Your task to perform on an android device: Open Reddit.com Image 0: 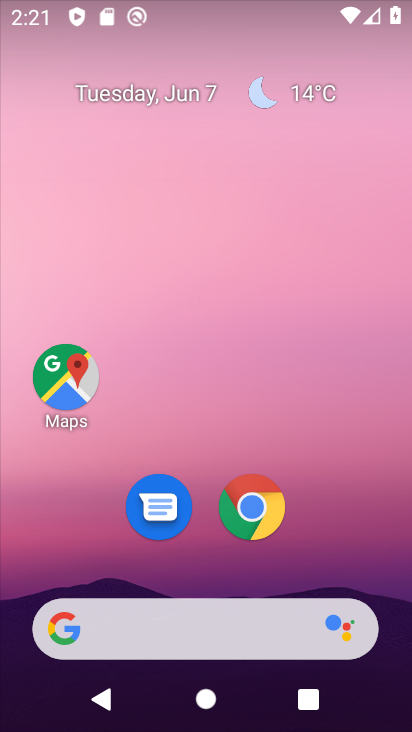
Step 0: click (249, 504)
Your task to perform on an android device: Open Reddit.com Image 1: 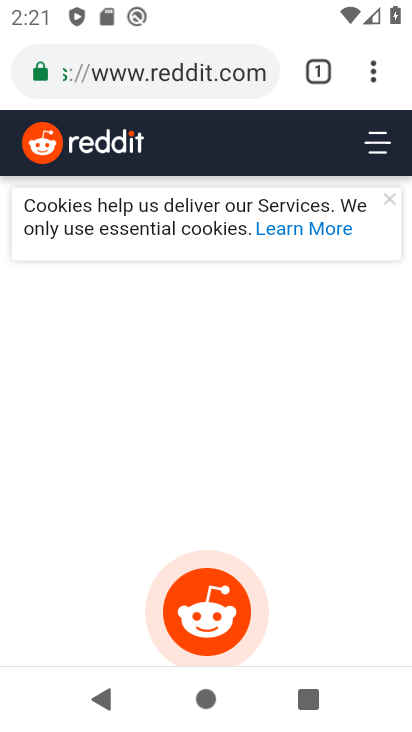
Step 1: task complete